Your task to perform on an android device: delete location history Image 0: 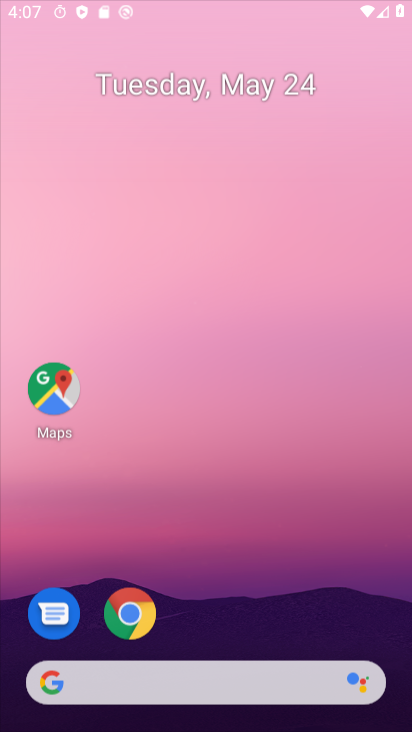
Step 0: drag from (281, 535) to (349, 48)
Your task to perform on an android device: delete location history Image 1: 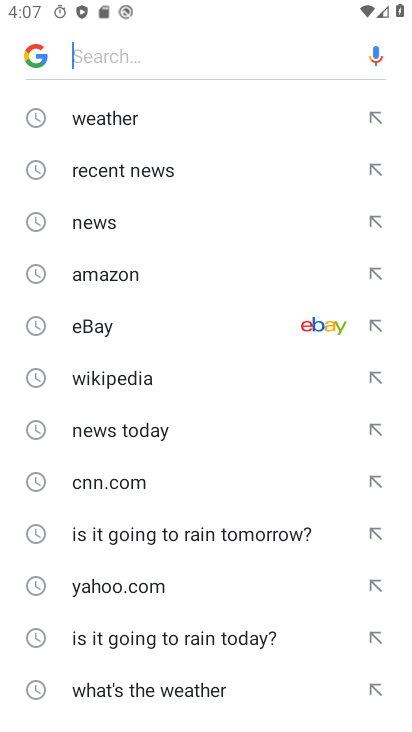
Step 1: press home button
Your task to perform on an android device: delete location history Image 2: 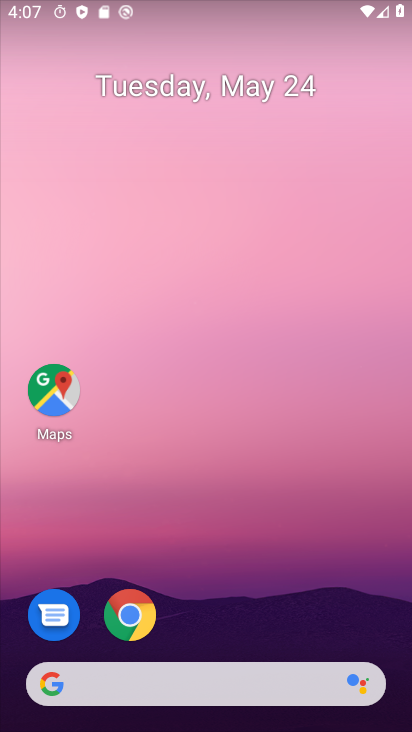
Step 2: drag from (198, 564) to (301, 43)
Your task to perform on an android device: delete location history Image 3: 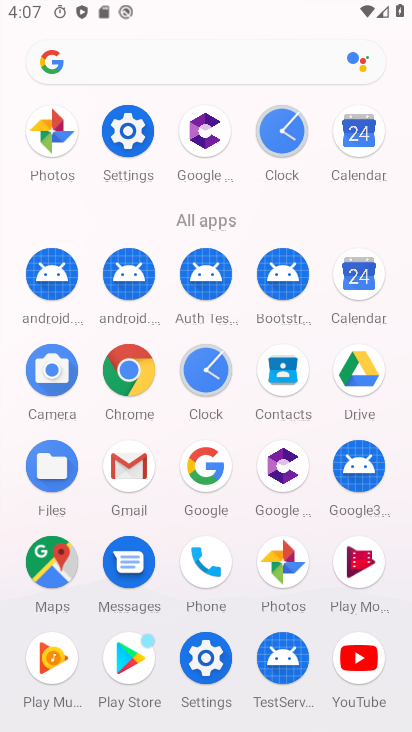
Step 3: click (284, 364)
Your task to perform on an android device: delete location history Image 4: 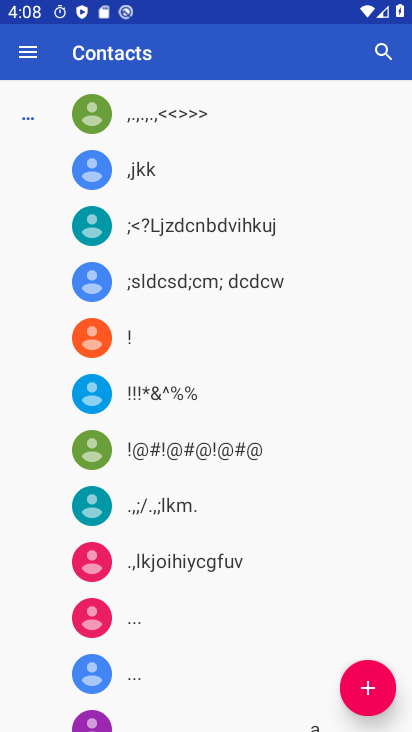
Step 4: press back button
Your task to perform on an android device: delete location history Image 5: 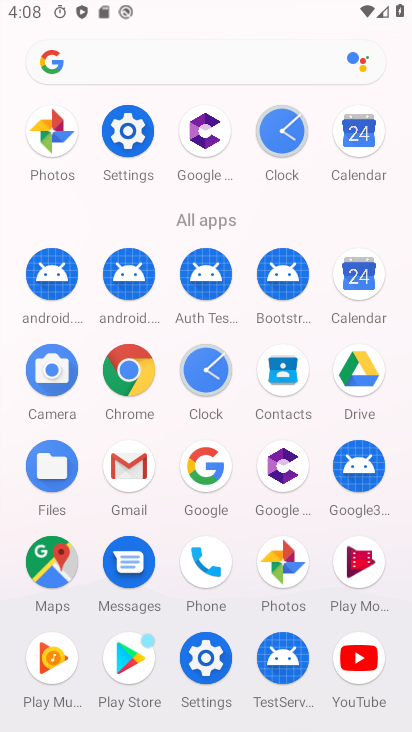
Step 5: click (50, 571)
Your task to perform on an android device: delete location history Image 6: 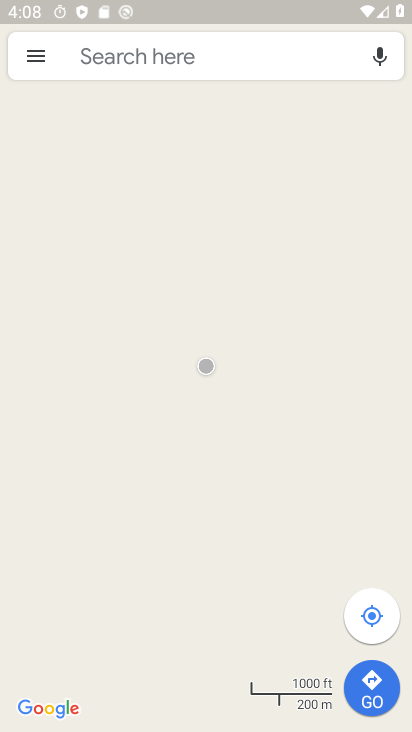
Step 6: click (30, 47)
Your task to perform on an android device: delete location history Image 7: 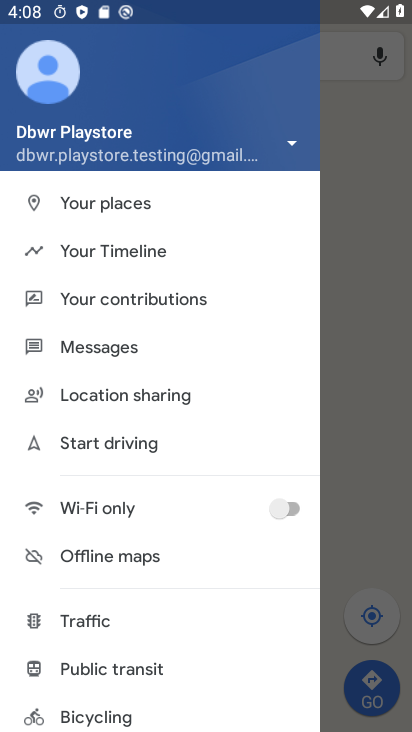
Step 7: click (117, 255)
Your task to perform on an android device: delete location history Image 8: 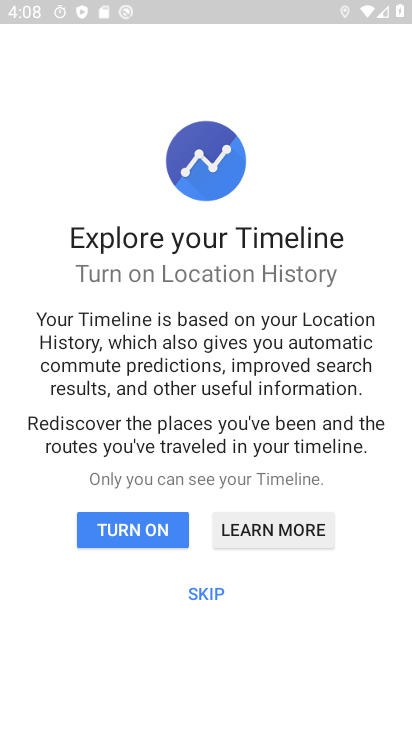
Step 8: click (204, 602)
Your task to perform on an android device: delete location history Image 9: 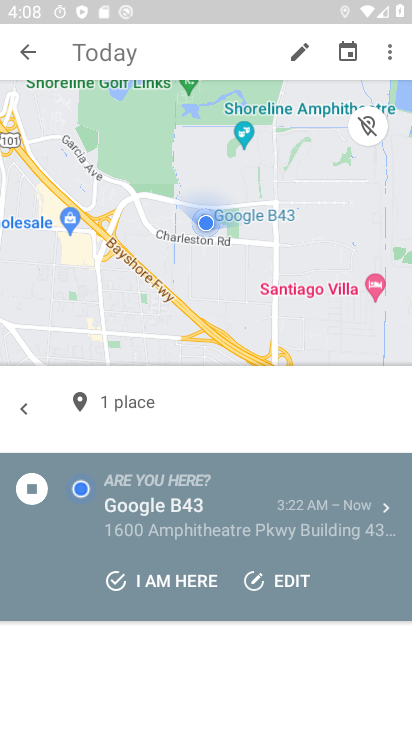
Step 9: click (391, 48)
Your task to perform on an android device: delete location history Image 10: 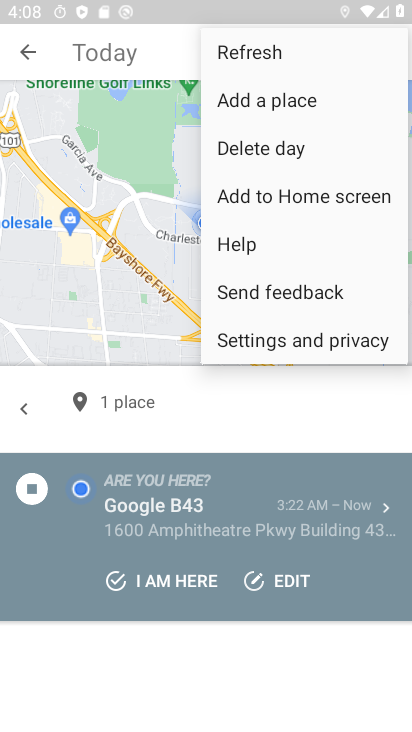
Step 10: click (263, 352)
Your task to perform on an android device: delete location history Image 11: 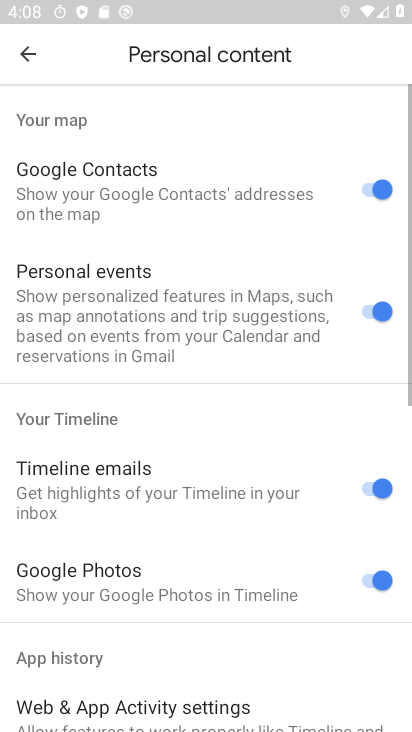
Step 11: drag from (135, 671) to (229, 89)
Your task to perform on an android device: delete location history Image 12: 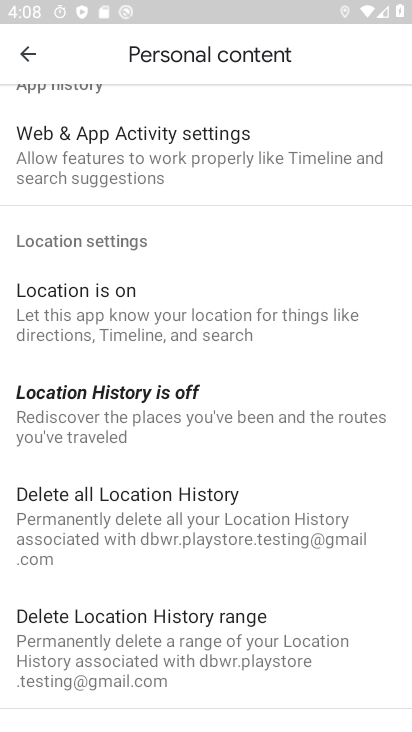
Step 12: click (100, 507)
Your task to perform on an android device: delete location history Image 13: 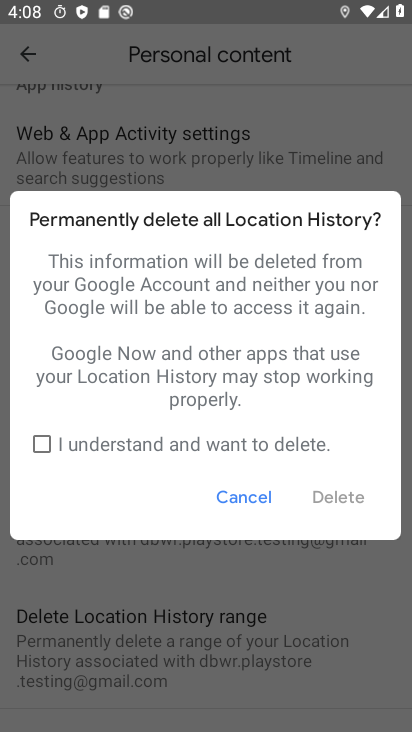
Step 13: click (63, 435)
Your task to perform on an android device: delete location history Image 14: 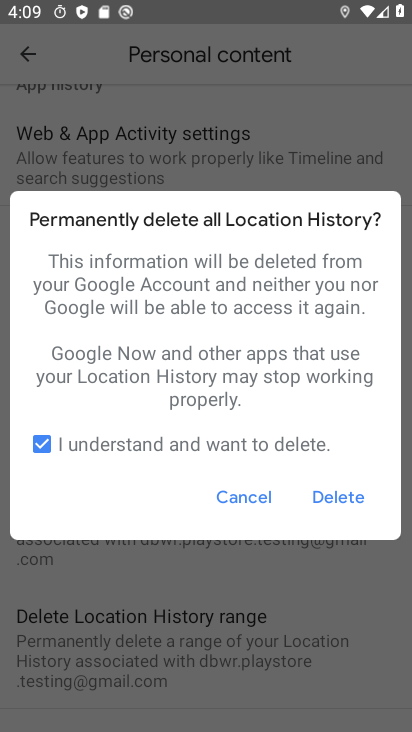
Step 14: click (332, 487)
Your task to perform on an android device: delete location history Image 15: 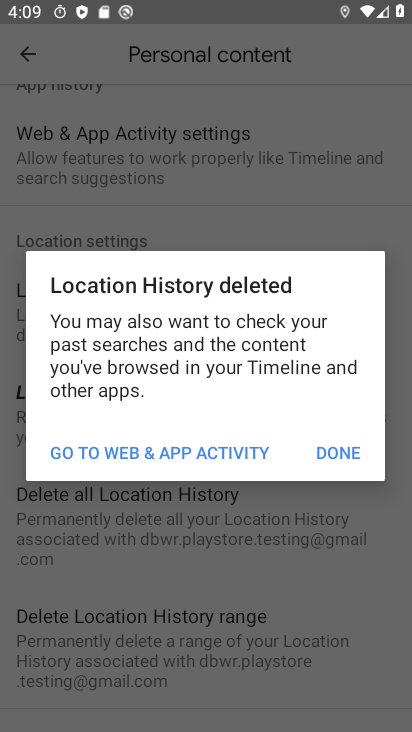
Step 15: click (344, 467)
Your task to perform on an android device: delete location history Image 16: 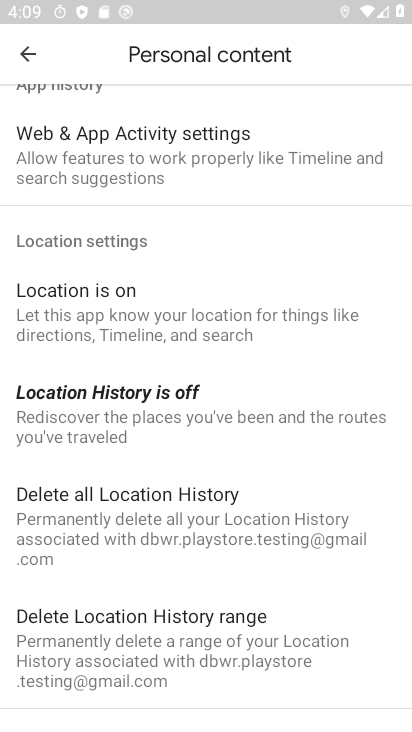
Step 16: task complete